Your task to perform on an android device: visit the assistant section in the google photos Image 0: 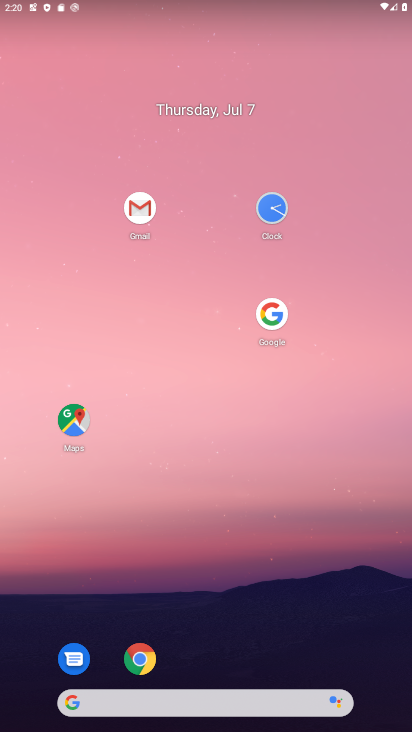
Step 0: drag from (263, 601) to (281, 108)
Your task to perform on an android device: visit the assistant section in the google photos Image 1: 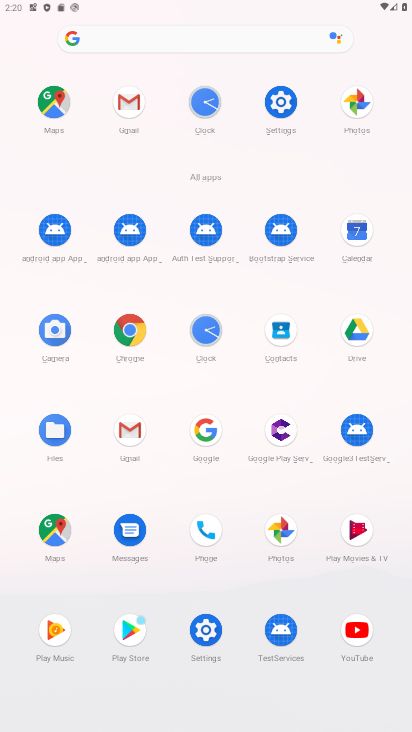
Step 1: drag from (289, 527) to (108, 319)
Your task to perform on an android device: visit the assistant section in the google photos Image 2: 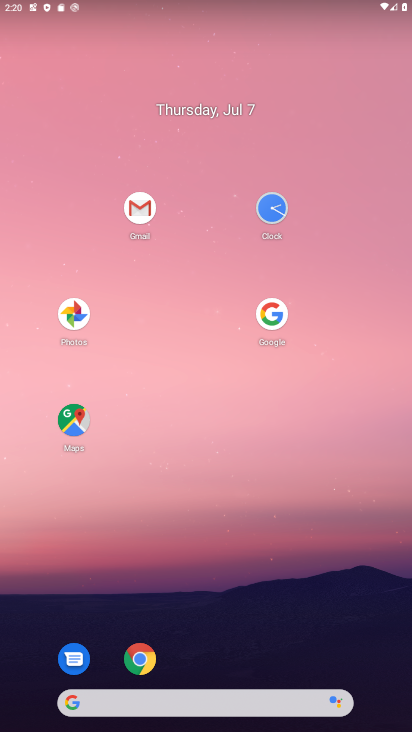
Step 2: click (85, 315)
Your task to perform on an android device: visit the assistant section in the google photos Image 3: 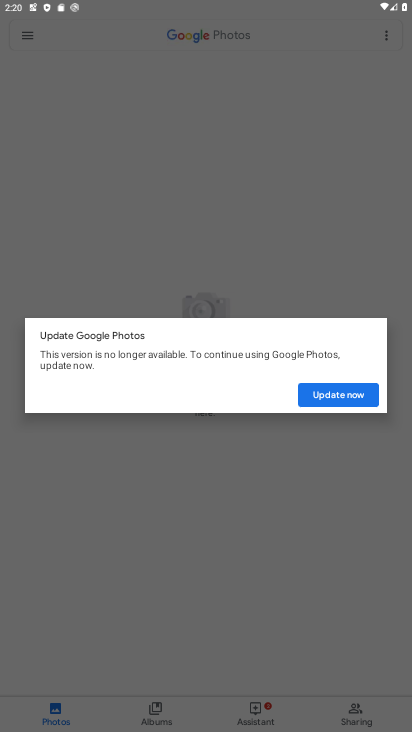
Step 3: click (315, 393)
Your task to perform on an android device: visit the assistant section in the google photos Image 4: 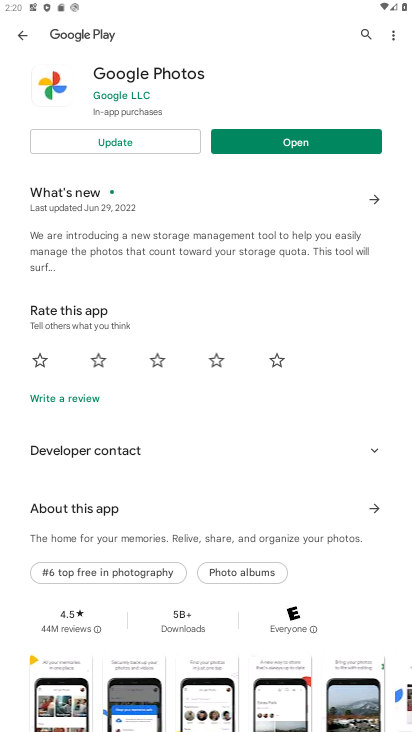
Step 4: click (119, 138)
Your task to perform on an android device: visit the assistant section in the google photos Image 5: 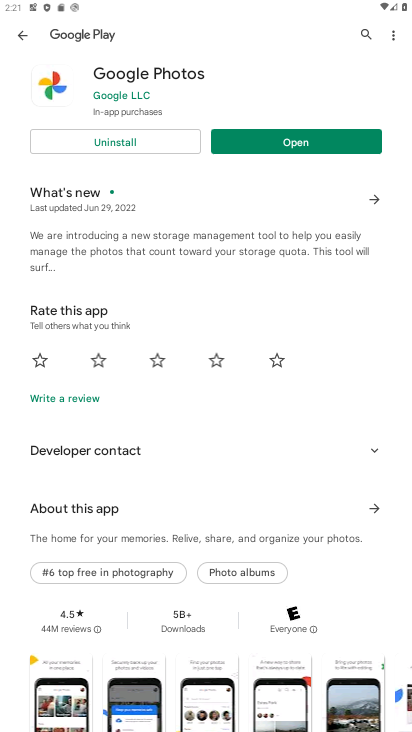
Step 5: click (249, 149)
Your task to perform on an android device: visit the assistant section in the google photos Image 6: 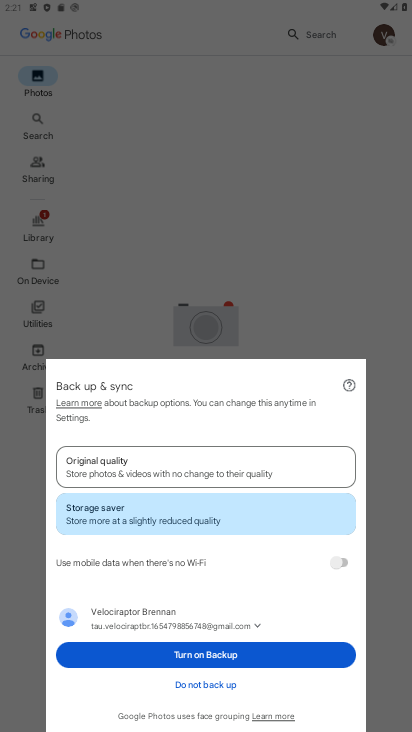
Step 6: click (288, 658)
Your task to perform on an android device: visit the assistant section in the google photos Image 7: 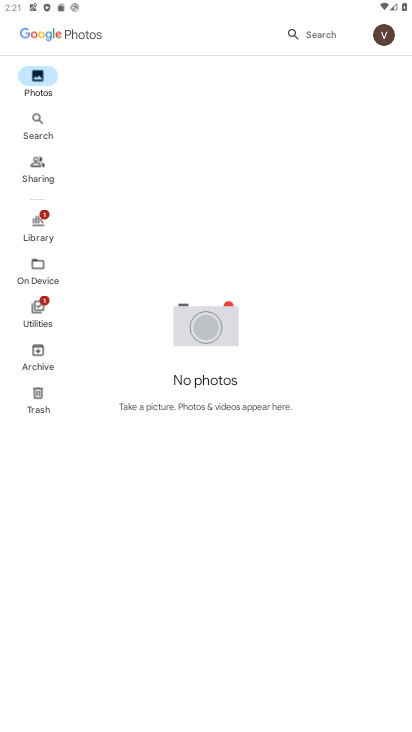
Step 7: click (384, 34)
Your task to perform on an android device: visit the assistant section in the google photos Image 8: 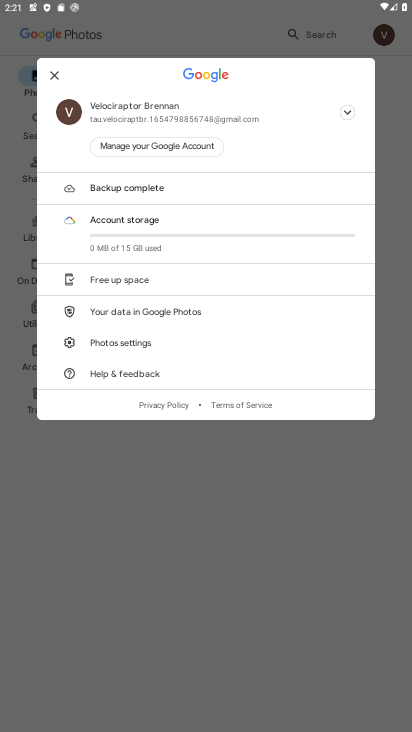
Step 8: task complete